Your task to perform on an android device: empty trash in the gmail app Image 0: 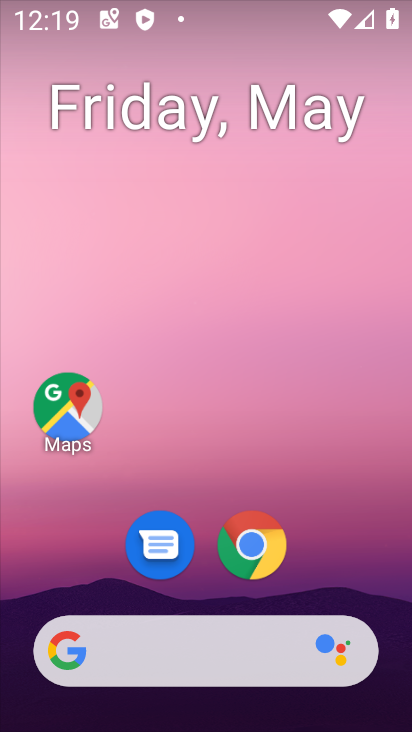
Step 0: drag from (317, 553) to (312, 238)
Your task to perform on an android device: empty trash in the gmail app Image 1: 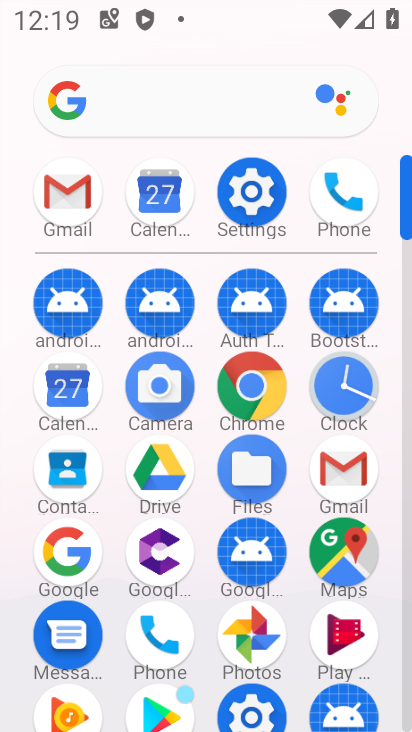
Step 1: click (344, 464)
Your task to perform on an android device: empty trash in the gmail app Image 2: 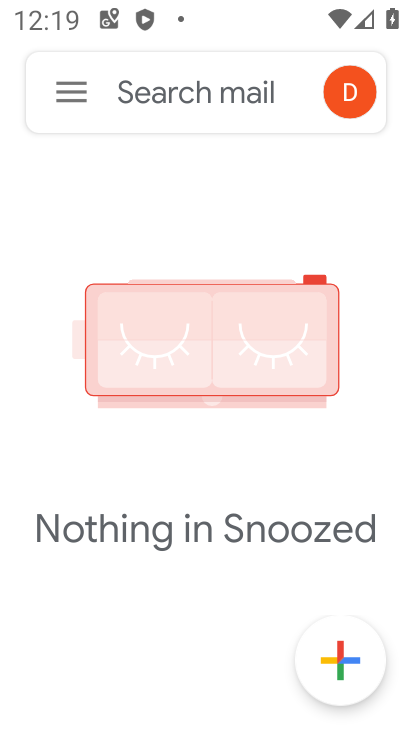
Step 2: click (72, 88)
Your task to perform on an android device: empty trash in the gmail app Image 3: 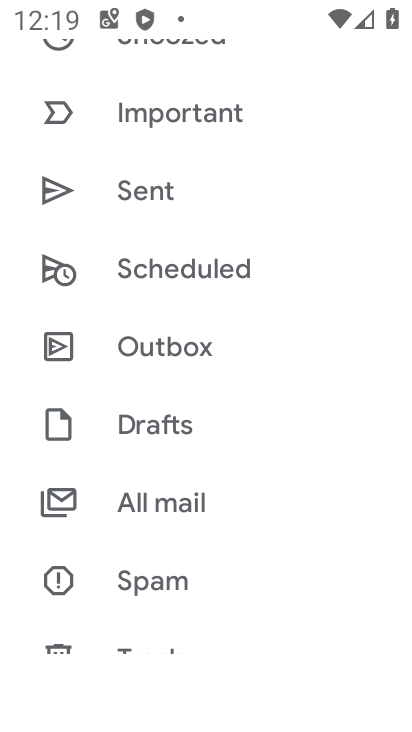
Step 3: drag from (296, 573) to (255, 184)
Your task to perform on an android device: empty trash in the gmail app Image 4: 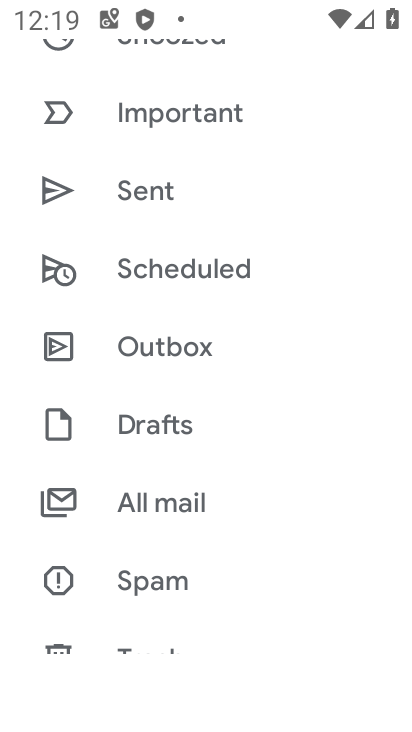
Step 4: drag from (157, 608) to (160, 241)
Your task to perform on an android device: empty trash in the gmail app Image 5: 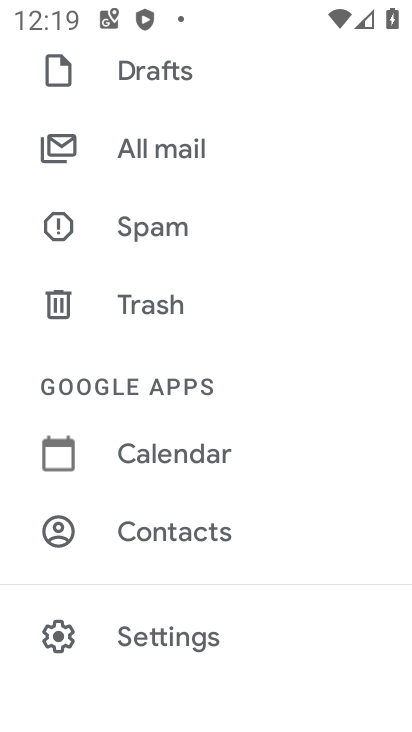
Step 5: click (148, 313)
Your task to perform on an android device: empty trash in the gmail app Image 6: 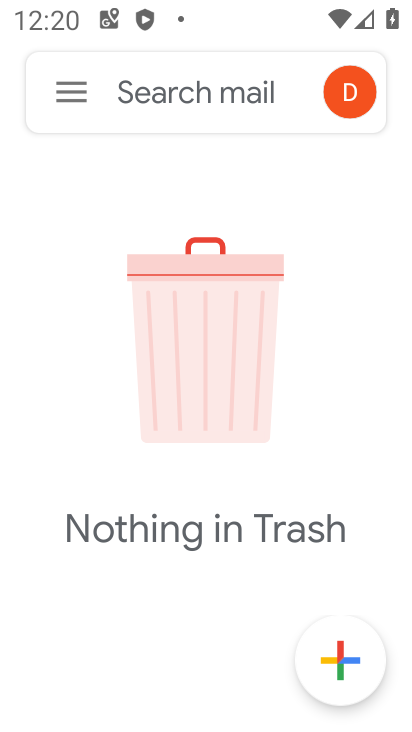
Step 6: task complete